Your task to perform on an android device: clear all cookies in the chrome app Image 0: 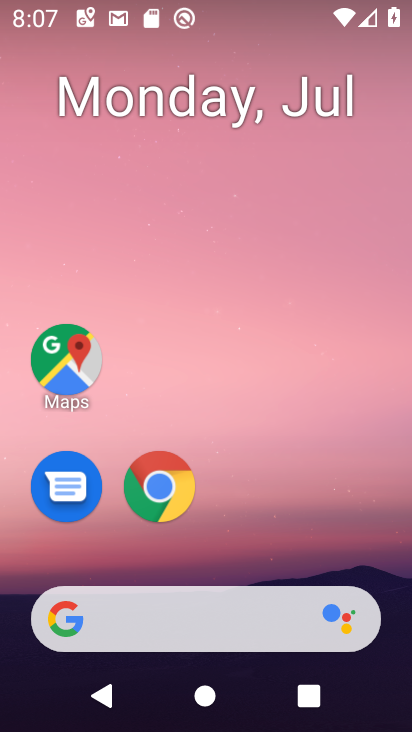
Step 0: drag from (377, 566) to (336, 221)
Your task to perform on an android device: clear all cookies in the chrome app Image 1: 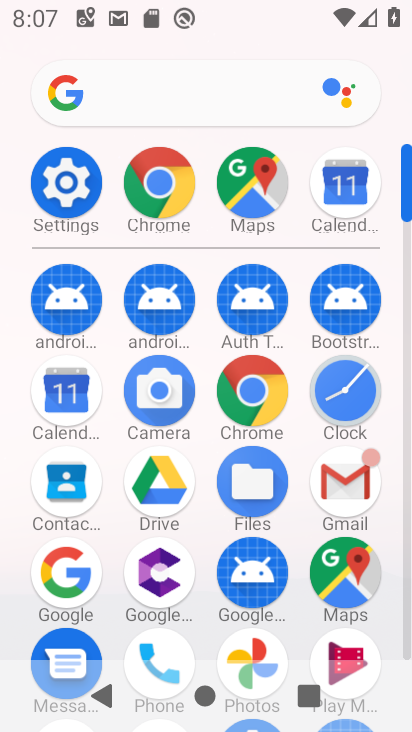
Step 1: click (254, 390)
Your task to perform on an android device: clear all cookies in the chrome app Image 2: 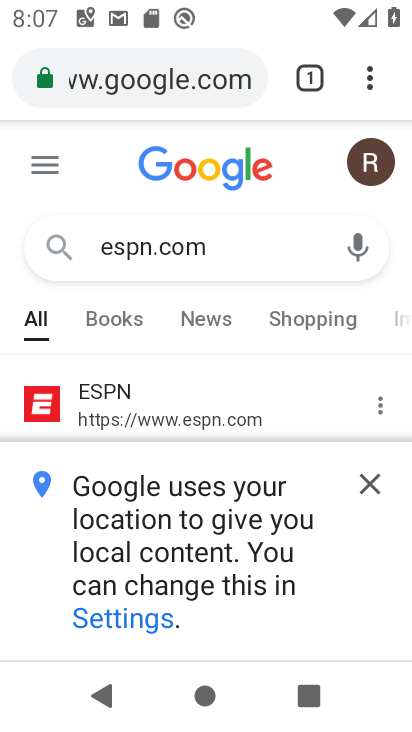
Step 2: click (369, 80)
Your task to perform on an android device: clear all cookies in the chrome app Image 3: 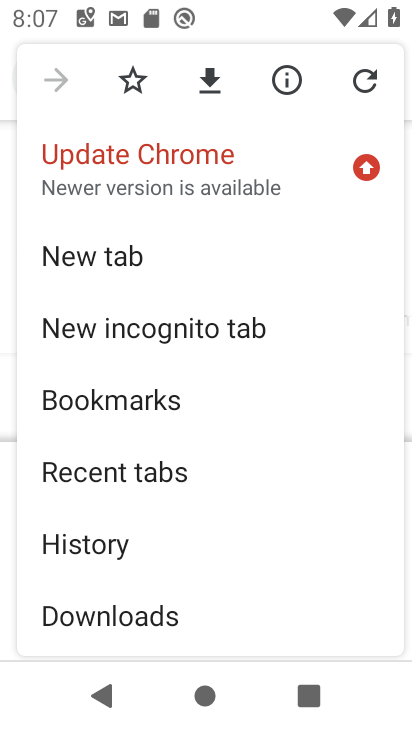
Step 3: drag from (330, 452) to (343, 350)
Your task to perform on an android device: clear all cookies in the chrome app Image 4: 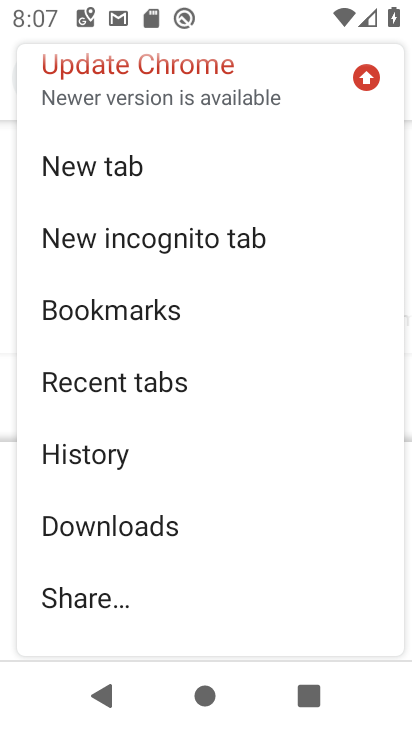
Step 4: drag from (338, 500) to (349, 376)
Your task to perform on an android device: clear all cookies in the chrome app Image 5: 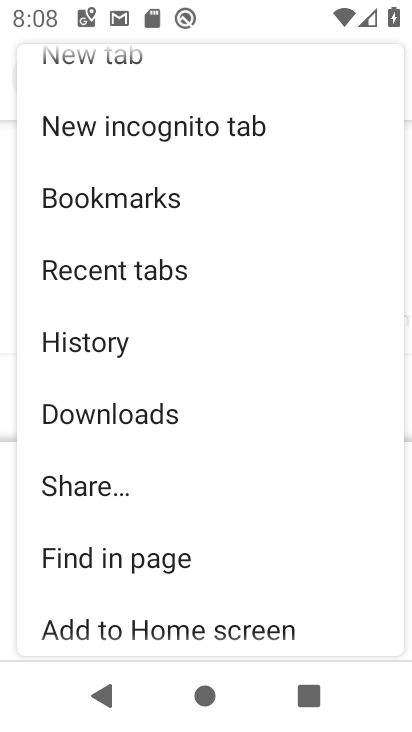
Step 5: drag from (312, 498) to (314, 412)
Your task to perform on an android device: clear all cookies in the chrome app Image 6: 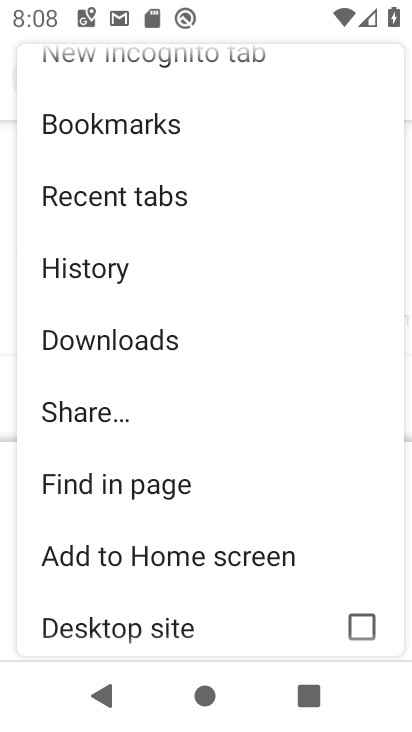
Step 6: drag from (314, 576) to (315, 451)
Your task to perform on an android device: clear all cookies in the chrome app Image 7: 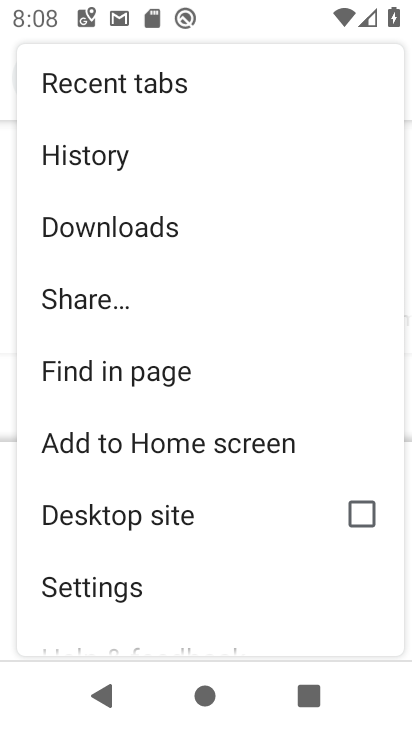
Step 7: drag from (291, 551) to (298, 444)
Your task to perform on an android device: clear all cookies in the chrome app Image 8: 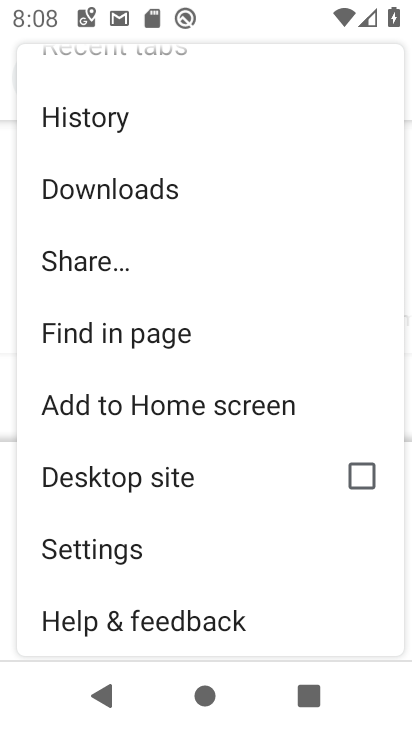
Step 8: click (264, 546)
Your task to perform on an android device: clear all cookies in the chrome app Image 9: 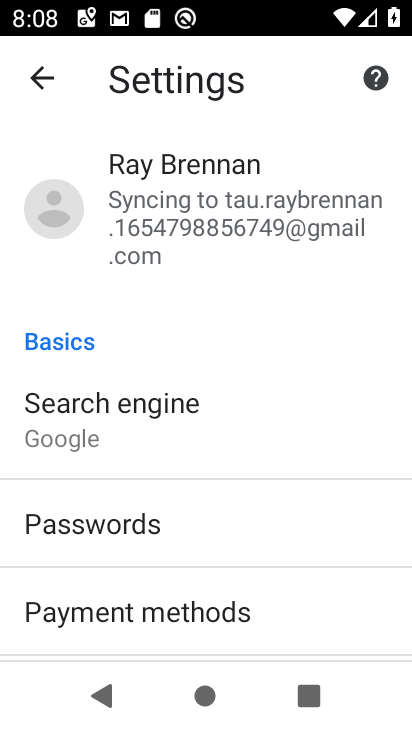
Step 9: drag from (327, 484) to (335, 406)
Your task to perform on an android device: clear all cookies in the chrome app Image 10: 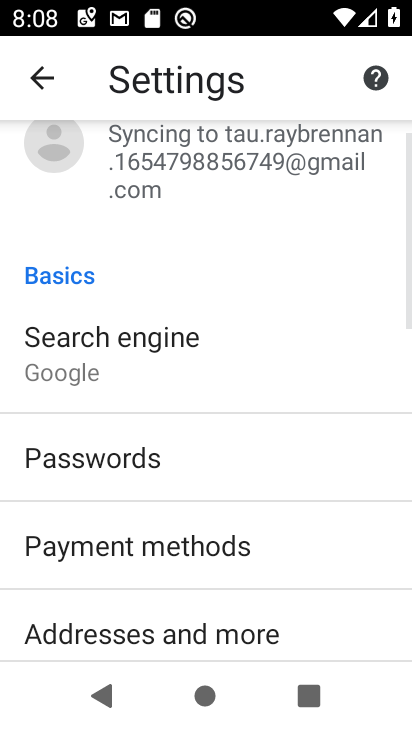
Step 10: drag from (329, 468) to (335, 379)
Your task to perform on an android device: clear all cookies in the chrome app Image 11: 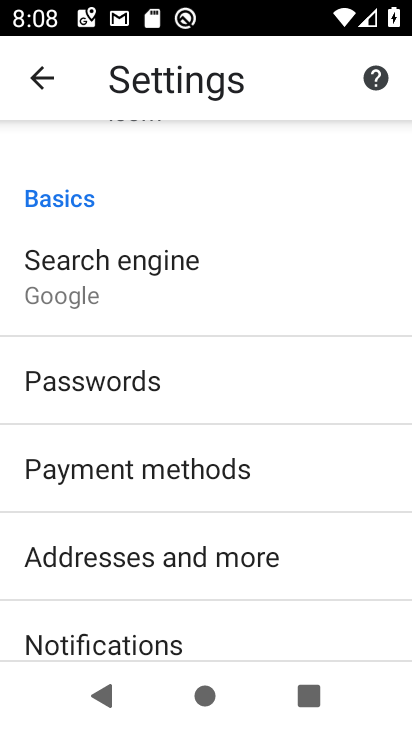
Step 11: drag from (329, 479) to (338, 392)
Your task to perform on an android device: clear all cookies in the chrome app Image 12: 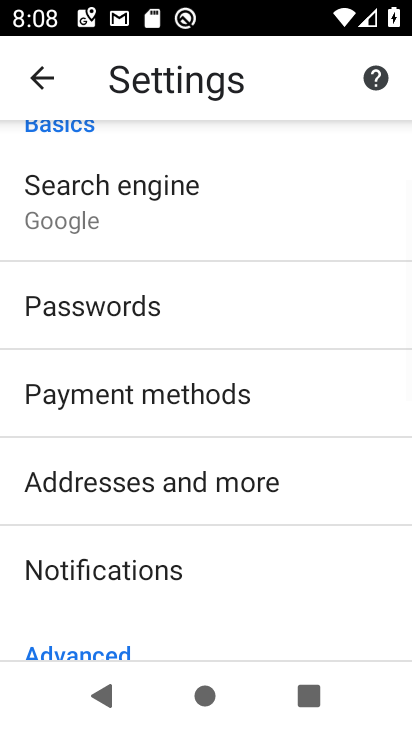
Step 12: drag from (346, 466) to (346, 392)
Your task to perform on an android device: clear all cookies in the chrome app Image 13: 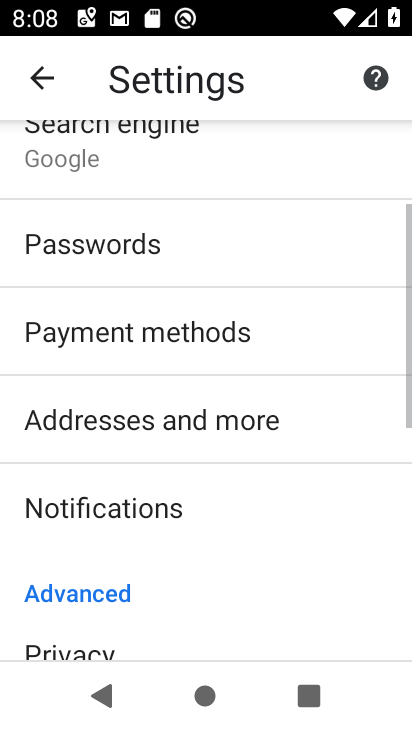
Step 13: drag from (345, 472) to (357, 411)
Your task to perform on an android device: clear all cookies in the chrome app Image 14: 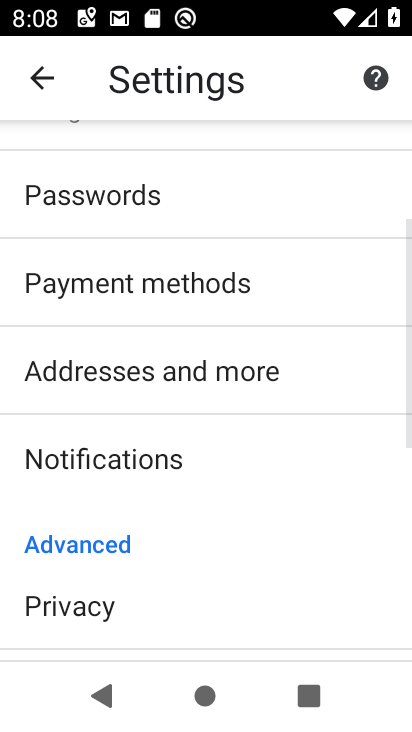
Step 14: drag from (346, 474) to (350, 396)
Your task to perform on an android device: clear all cookies in the chrome app Image 15: 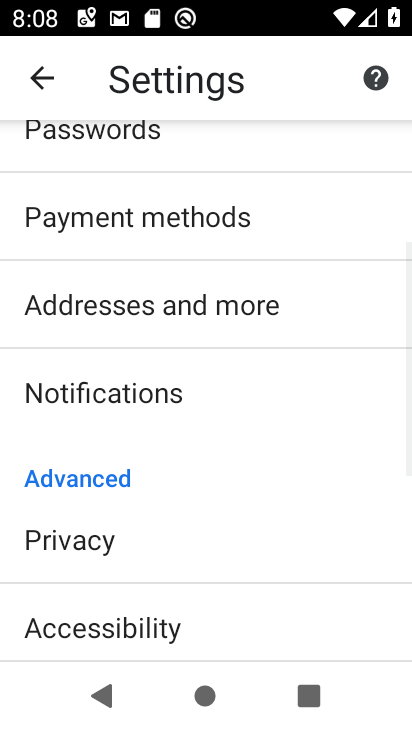
Step 15: drag from (350, 461) to (356, 398)
Your task to perform on an android device: clear all cookies in the chrome app Image 16: 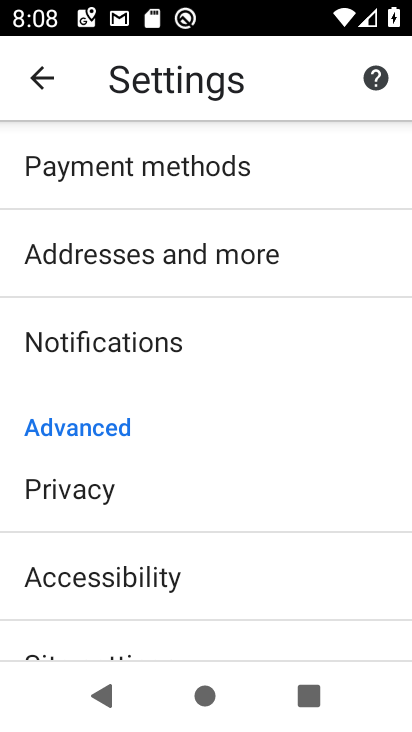
Step 16: drag from (356, 508) to (369, 426)
Your task to perform on an android device: clear all cookies in the chrome app Image 17: 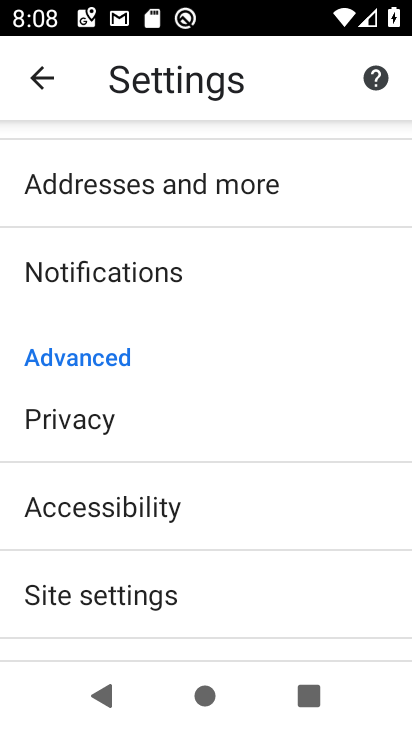
Step 17: drag from (366, 530) to (375, 451)
Your task to perform on an android device: clear all cookies in the chrome app Image 18: 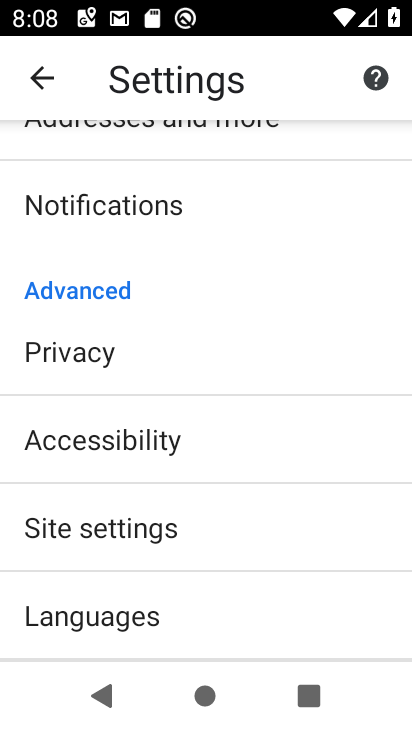
Step 18: drag from (340, 511) to (340, 423)
Your task to perform on an android device: clear all cookies in the chrome app Image 19: 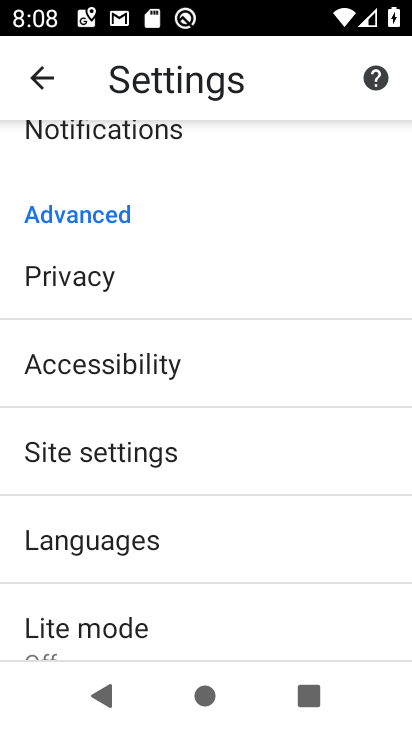
Step 19: drag from (326, 503) to (331, 441)
Your task to perform on an android device: clear all cookies in the chrome app Image 20: 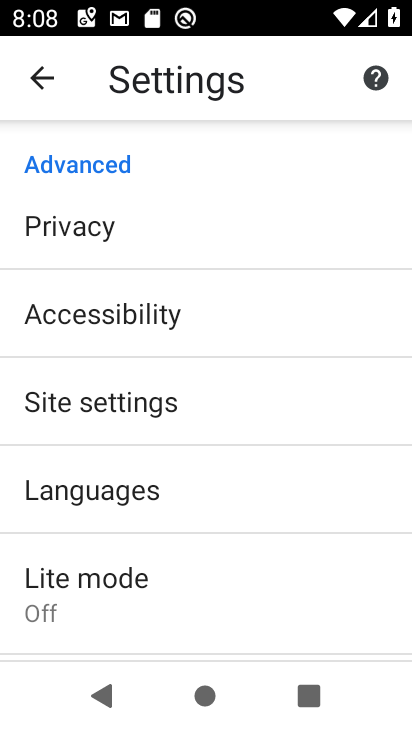
Step 20: click (240, 248)
Your task to perform on an android device: clear all cookies in the chrome app Image 21: 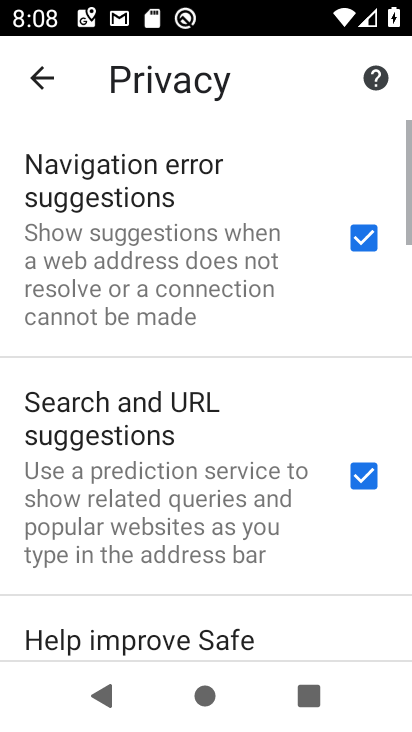
Step 21: drag from (270, 405) to (283, 322)
Your task to perform on an android device: clear all cookies in the chrome app Image 22: 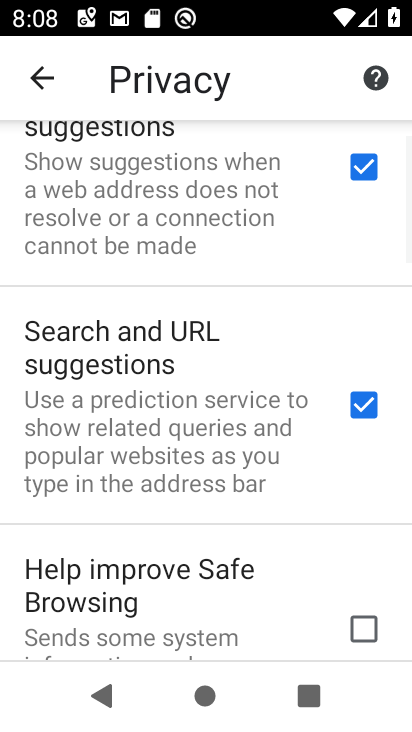
Step 22: drag from (295, 402) to (298, 316)
Your task to perform on an android device: clear all cookies in the chrome app Image 23: 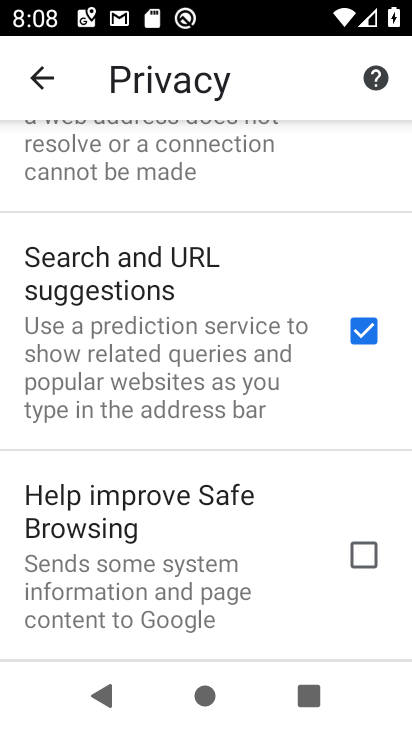
Step 23: drag from (306, 415) to (308, 326)
Your task to perform on an android device: clear all cookies in the chrome app Image 24: 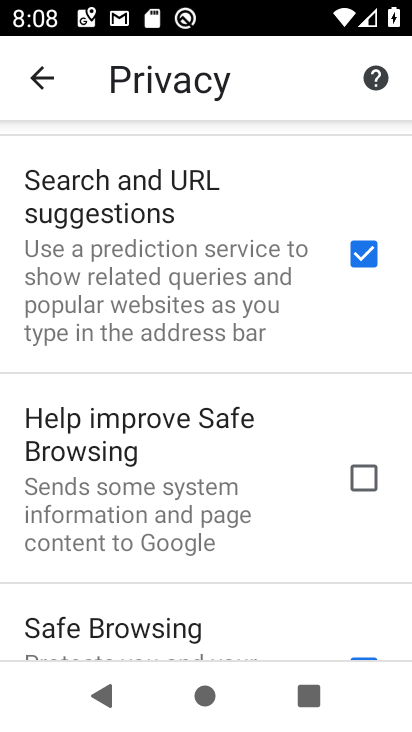
Step 24: drag from (296, 407) to (297, 324)
Your task to perform on an android device: clear all cookies in the chrome app Image 25: 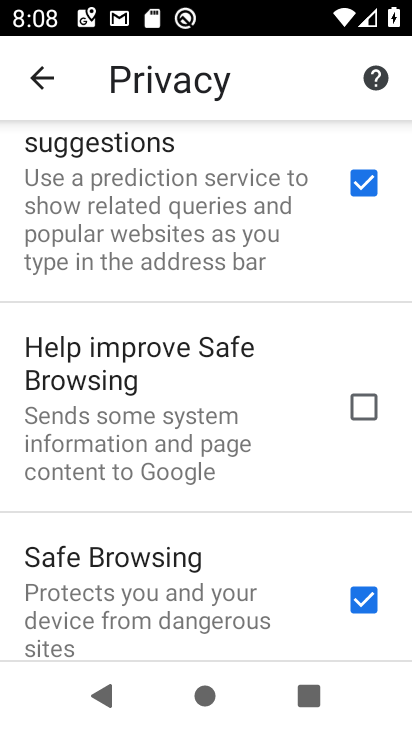
Step 25: drag from (285, 402) to (282, 316)
Your task to perform on an android device: clear all cookies in the chrome app Image 26: 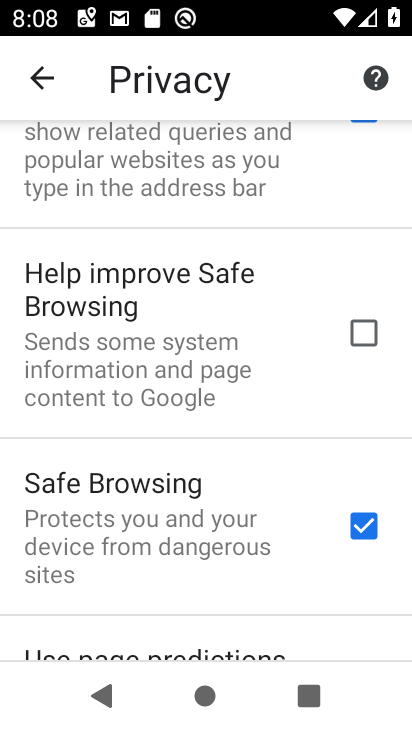
Step 26: drag from (282, 401) to (284, 302)
Your task to perform on an android device: clear all cookies in the chrome app Image 27: 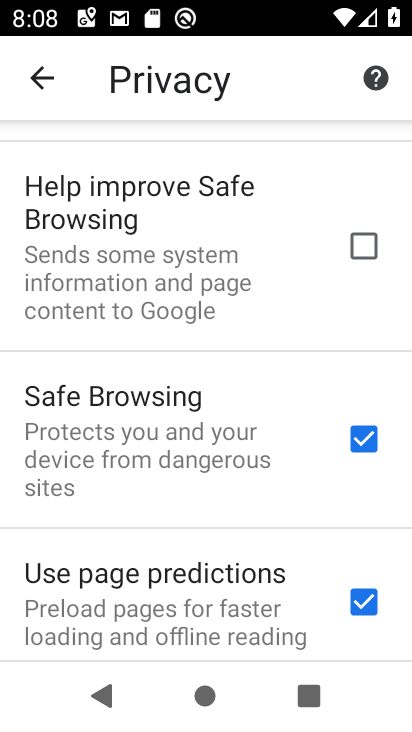
Step 27: drag from (284, 443) to (288, 354)
Your task to perform on an android device: clear all cookies in the chrome app Image 28: 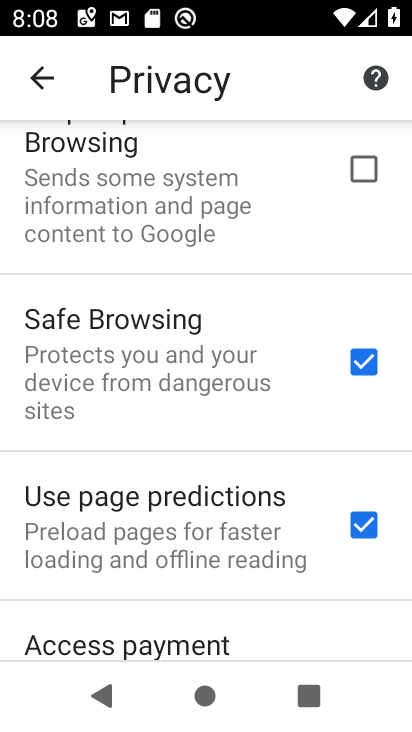
Step 28: drag from (290, 468) to (295, 375)
Your task to perform on an android device: clear all cookies in the chrome app Image 29: 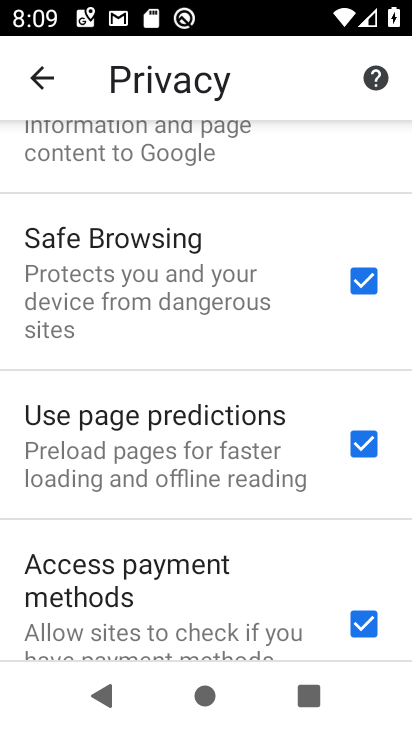
Step 29: drag from (310, 513) to (320, 410)
Your task to perform on an android device: clear all cookies in the chrome app Image 30: 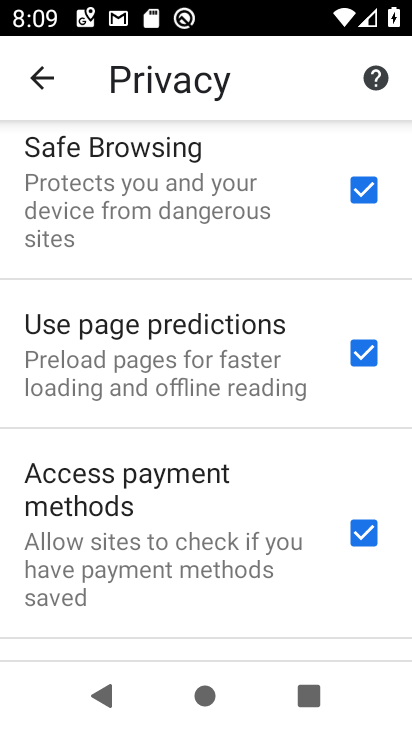
Step 30: drag from (307, 486) to (308, 408)
Your task to perform on an android device: clear all cookies in the chrome app Image 31: 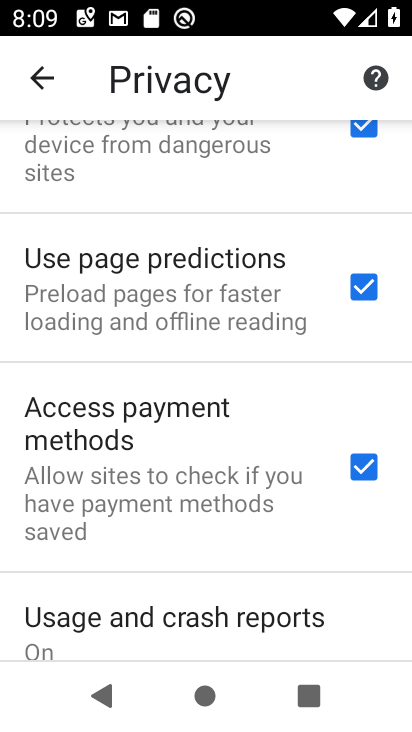
Step 31: drag from (309, 493) to (301, 391)
Your task to perform on an android device: clear all cookies in the chrome app Image 32: 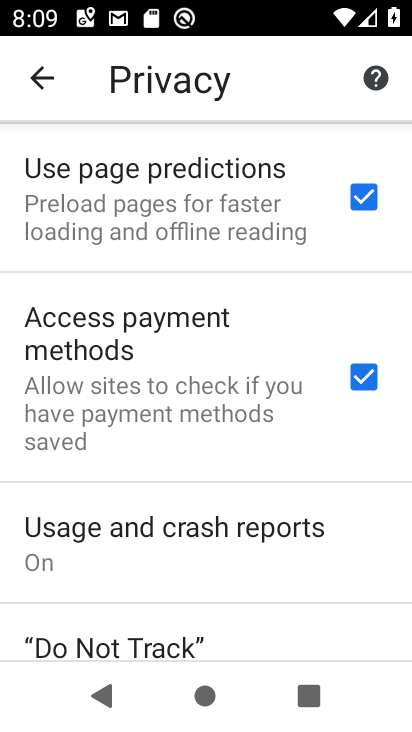
Step 32: drag from (302, 489) to (302, 401)
Your task to perform on an android device: clear all cookies in the chrome app Image 33: 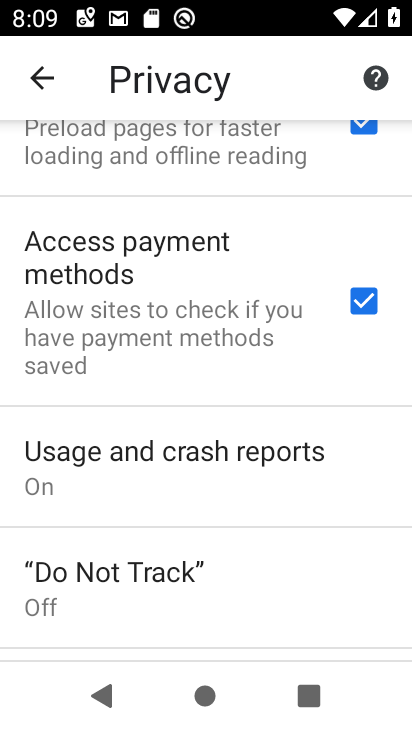
Step 33: drag from (304, 495) to (301, 362)
Your task to perform on an android device: clear all cookies in the chrome app Image 34: 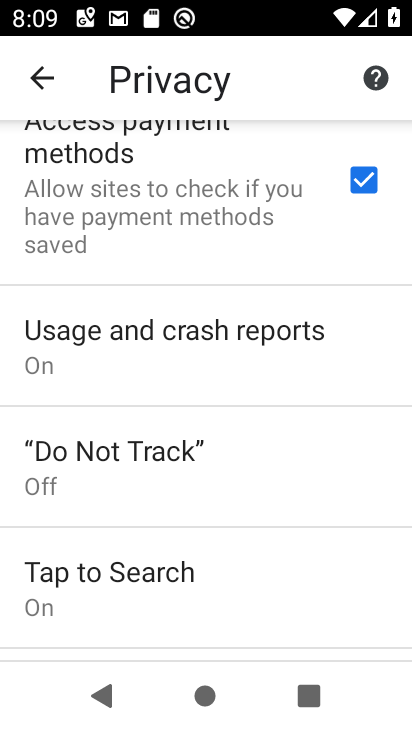
Step 34: drag from (301, 509) to (309, 401)
Your task to perform on an android device: clear all cookies in the chrome app Image 35: 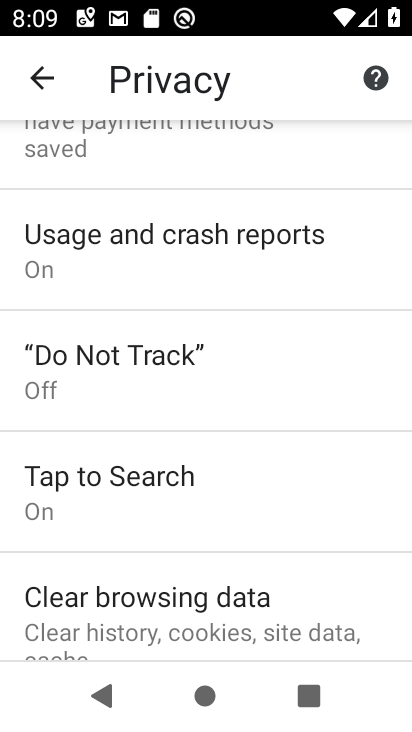
Step 35: drag from (313, 512) to (318, 402)
Your task to perform on an android device: clear all cookies in the chrome app Image 36: 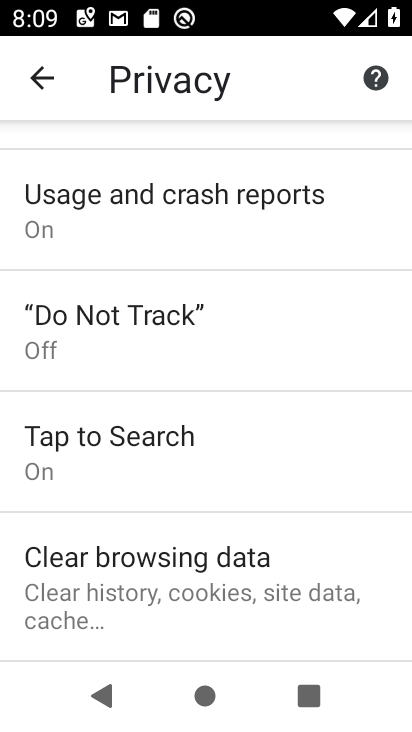
Step 36: click (305, 587)
Your task to perform on an android device: clear all cookies in the chrome app Image 37: 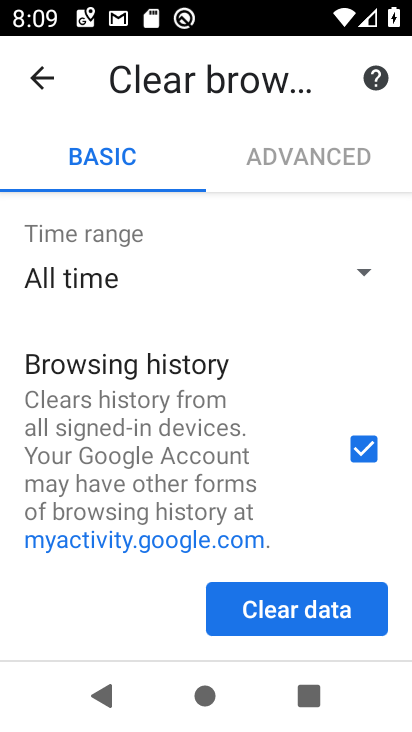
Step 37: click (299, 607)
Your task to perform on an android device: clear all cookies in the chrome app Image 38: 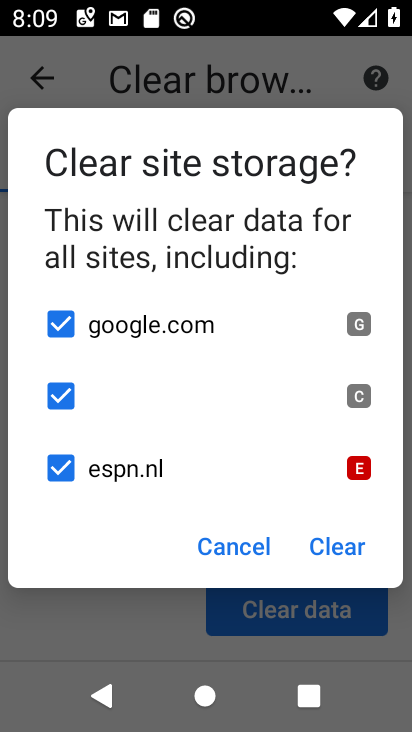
Step 38: click (325, 547)
Your task to perform on an android device: clear all cookies in the chrome app Image 39: 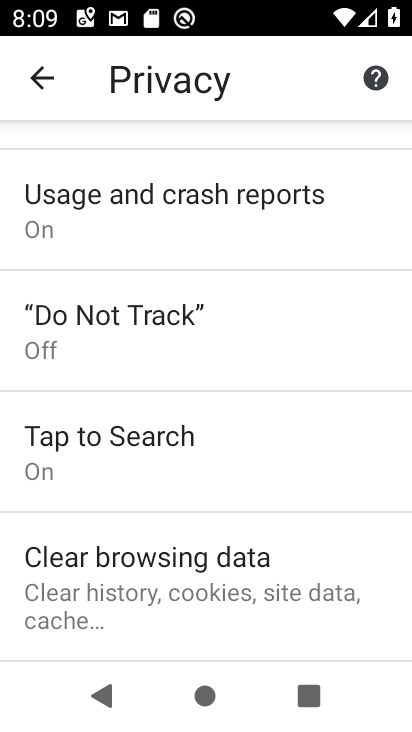
Step 39: task complete